Your task to perform on an android device: Go to accessibility settings Image 0: 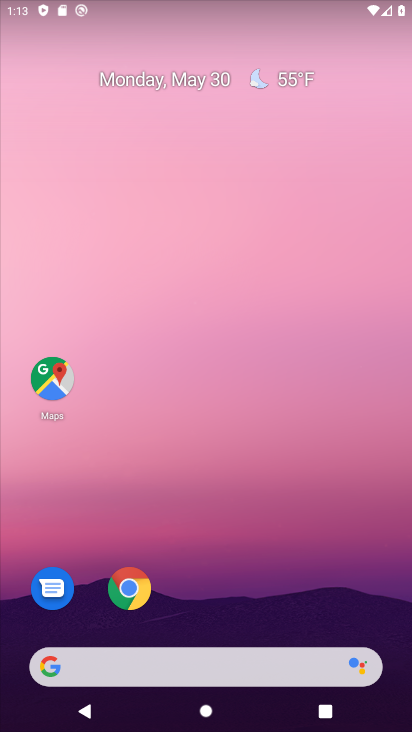
Step 0: drag from (393, 620) to (315, 242)
Your task to perform on an android device: Go to accessibility settings Image 1: 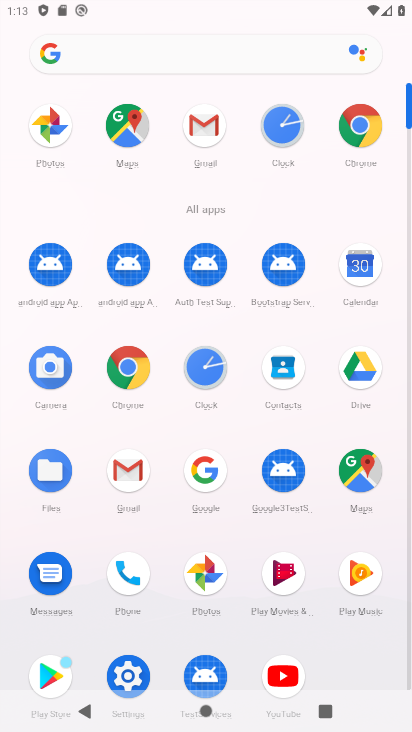
Step 1: click (408, 655)
Your task to perform on an android device: Go to accessibility settings Image 2: 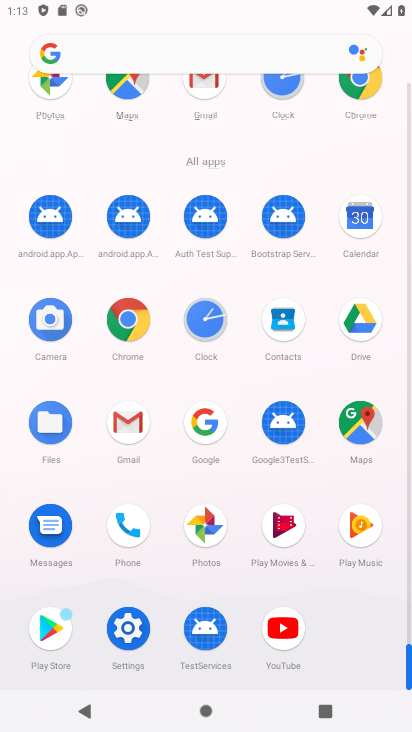
Step 2: click (130, 631)
Your task to perform on an android device: Go to accessibility settings Image 3: 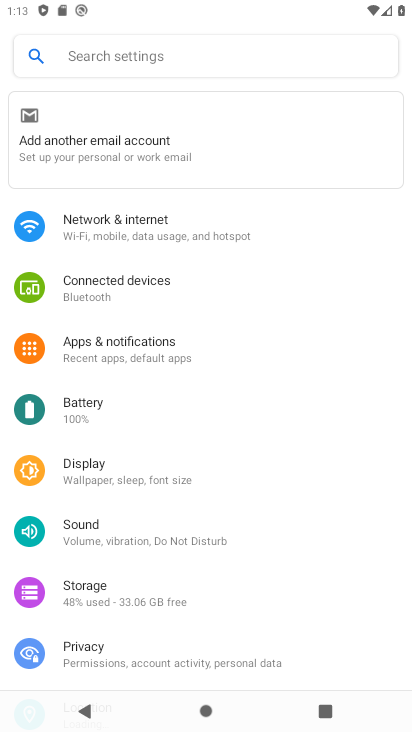
Step 3: drag from (296, 590) to (273, 363)
Your task to perform on an android device: Go to accessibility settings Image 4: 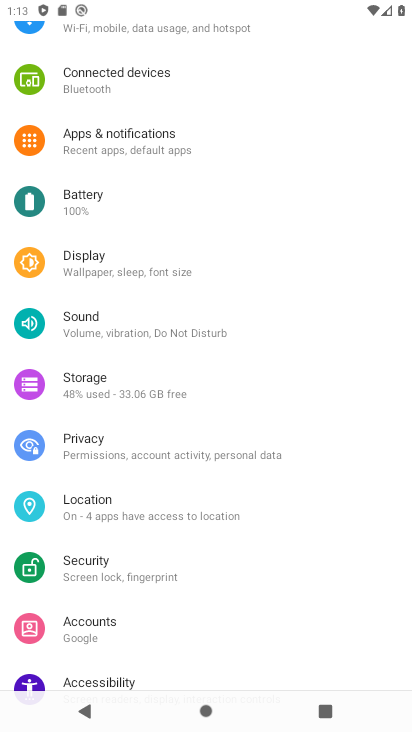
Step 4: drag from (288, 600) to (240, 207)
Your task to perform on an android device: Go to accessibility settings Image 5: 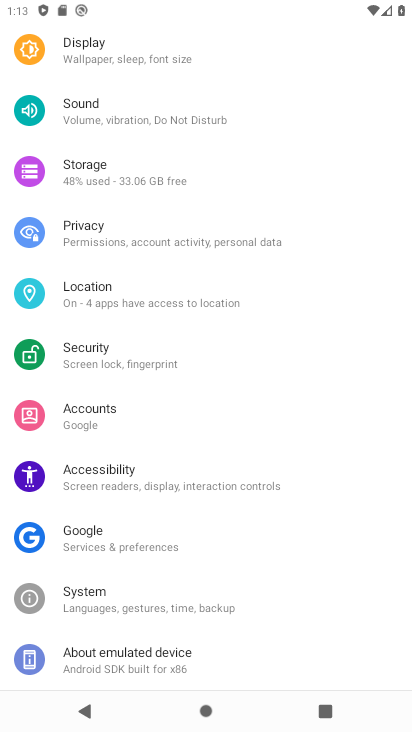
Step 5: click (94, 477)
Your task to perform on an android device: Go to accessibility settings Image 6: 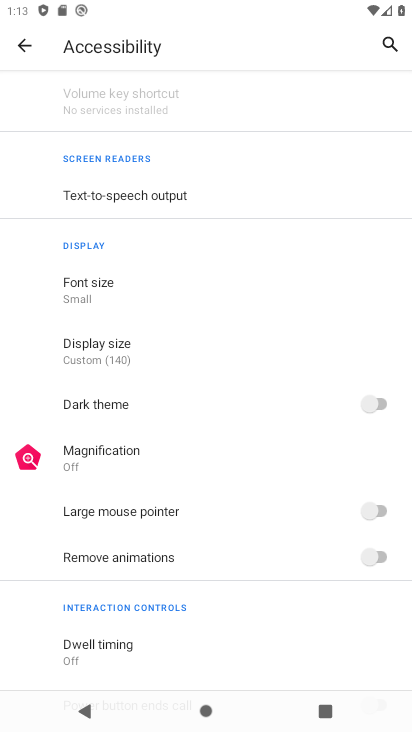
Step 6: task complete